Your task to perform on an android device: Open privacy settings Image 0: 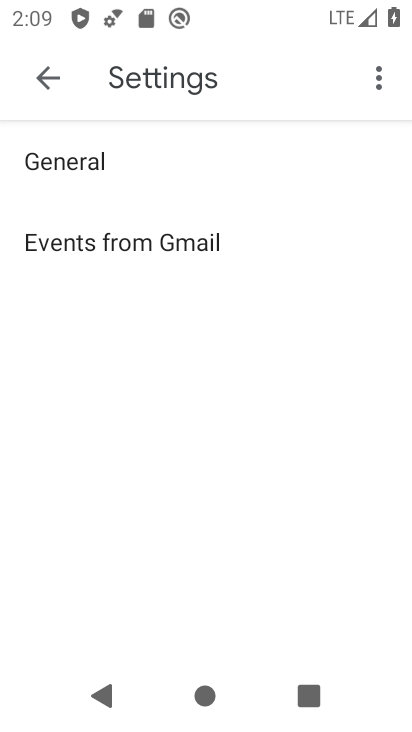
Step 0: press home button
Your task to perform on an android device: Open privacy settings Image 1: 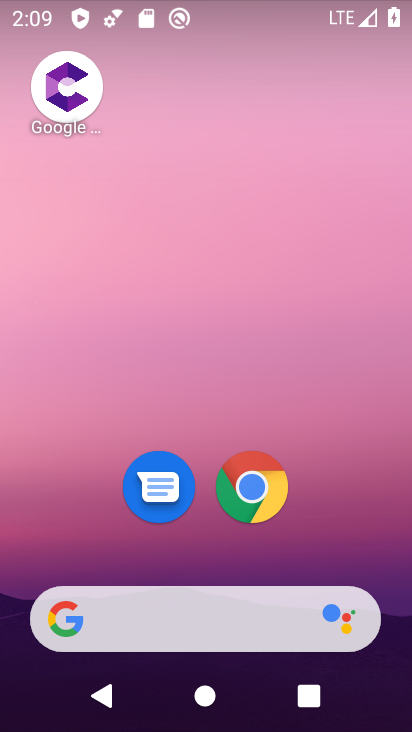
Step 1: drag from (339, 461) to (383, 67)
Your task to perform on an android device: Open privacy settings Image 2: 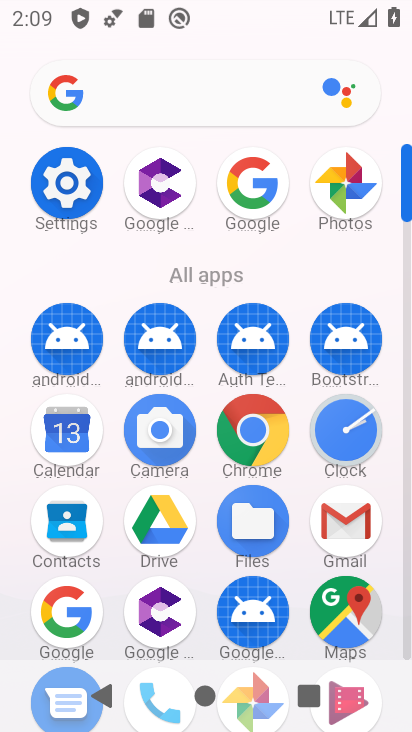
Step 2: click (68, 179)
Your task to perform on an android device: Open privacy settings Image 3: 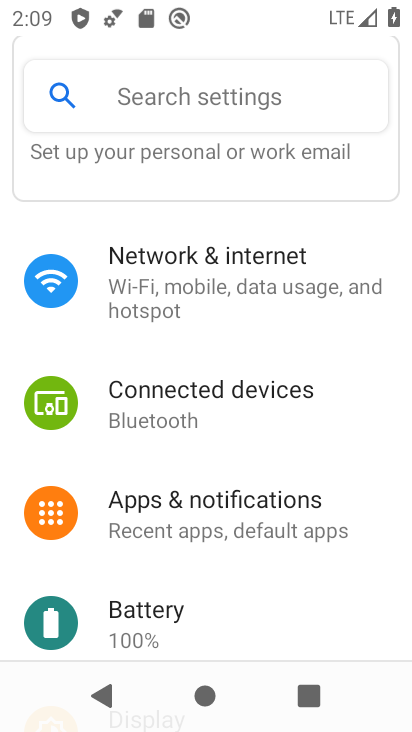
Step 3: drag from (272, 568) to (287, 39)
Your task to perform on an android device: Open privacy settings Image 4: 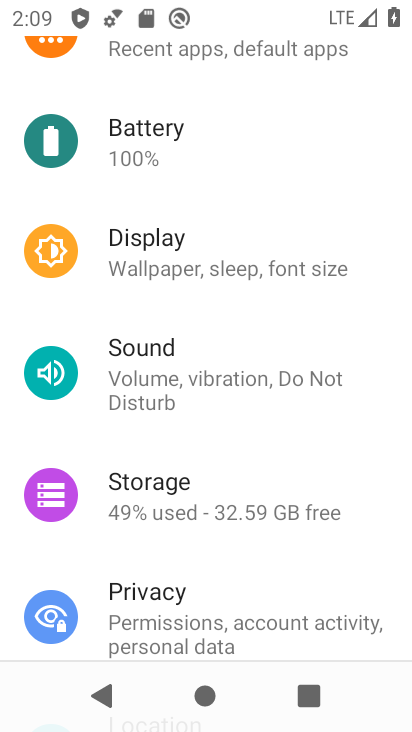
Step 4: drag from (243, 552) to (240, 326)
Your task to perform on an android device: Open privacy settings Image 5: 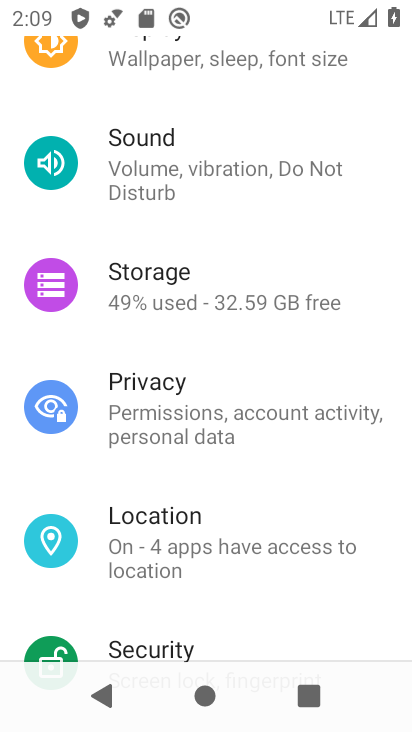
Step 5: click (114, 402)
Your task to perform on an android device: Open privacy settings Image 6: 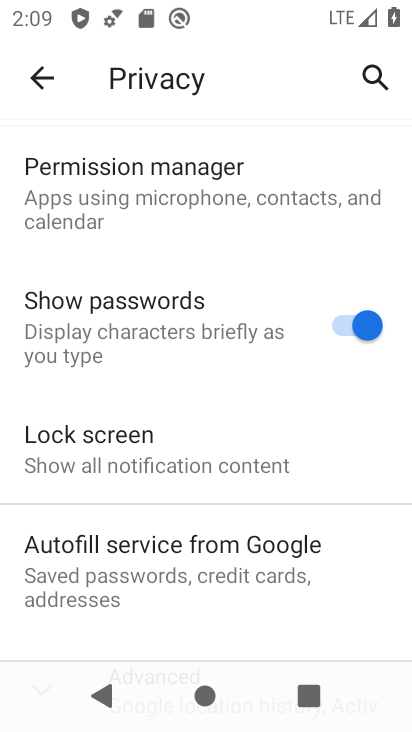
Step 6: task complete